Your task to perform on an android device: Open the phone app and click the voicemail tab. Image 0: 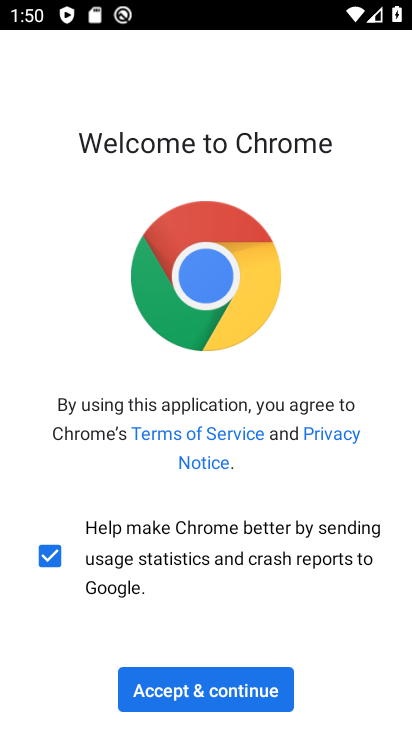
Step 0: press home button
Your task to perform on an android device: Open the phone app and click the voicemail tab. Image 1: 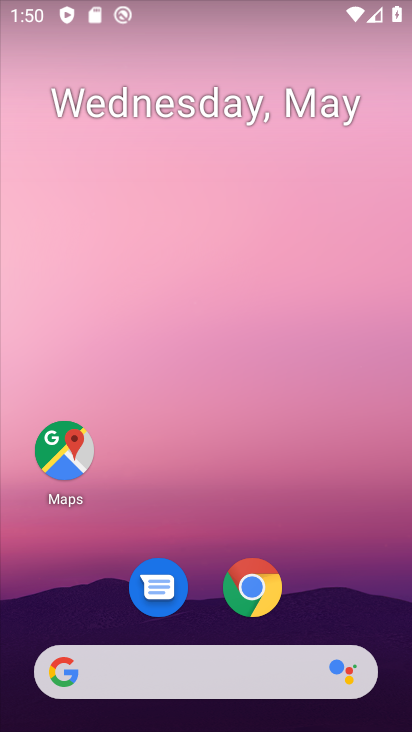
Step 1: drag from (310, 609) to (305, 315)
Your task to perform on an android device: Open the phone app and click the voicemail tab. Image 2: 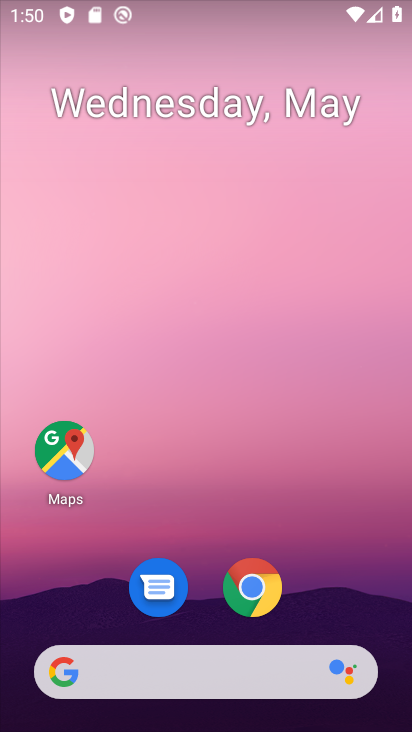
Step 2: click (199, 101)
Your task to perform on an android device: Open the phone app and click the voicemail tab. Image 3: 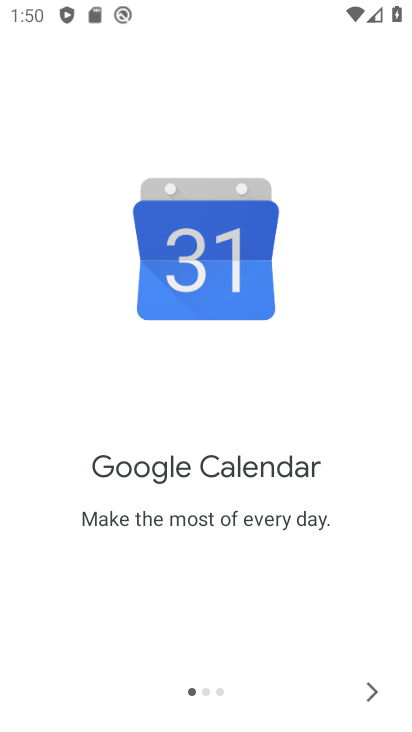
Step 3: press home button
Your task to perform on an android device: Open the phone app and click the voicemail tab. Image 4: 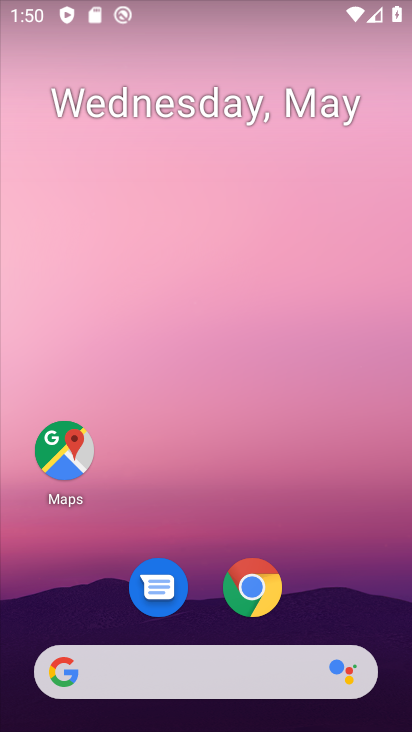
Step 4: drag from (308, 630) to (270, 296)
Your task to perform on an android device: Open the phone app and click the voicemail tab. Image 5: 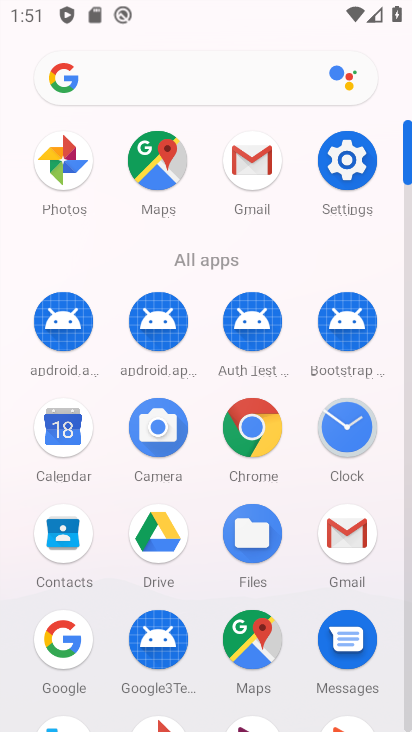
Step 5: drag from (160, 636) to (180, 332)
Your task to perform on an android device: Open the phone app and click the voicemail tab. Image 6: 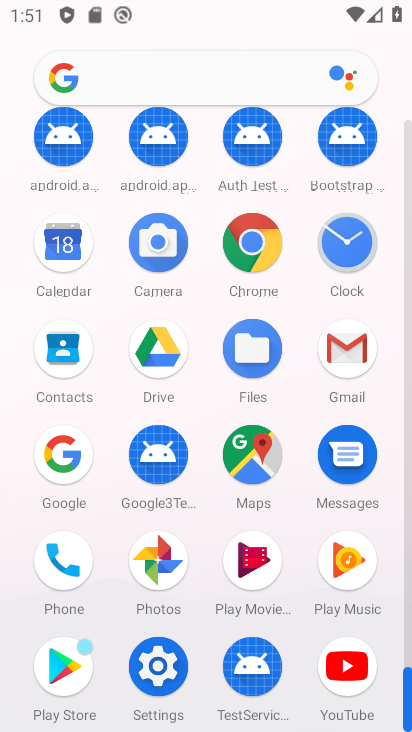
Step 6: click (59, 557)
Your task to perform on an android device: Open the phone app and click the voicemail tab. Image 7: 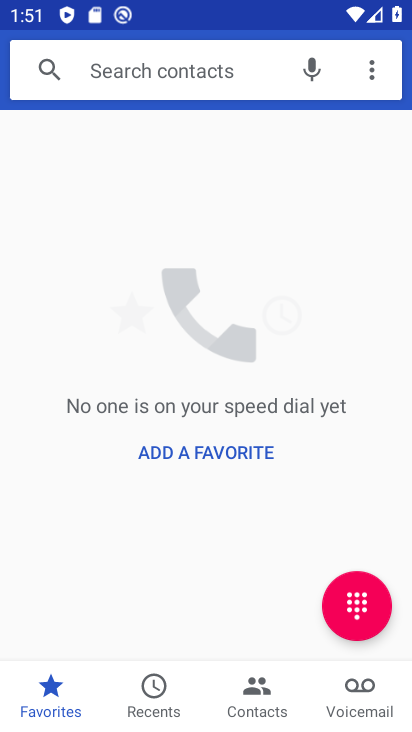
Step 7: click (344, 711)
Your task to perform on an android device: Open the phone app and click the voicemail tab. Image 8: 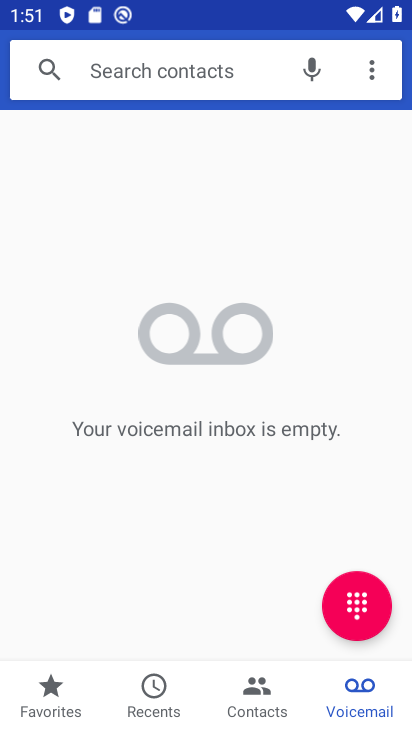
Step 8: task complete